Your task to perform on an android device: change text size in settings app Image 0: 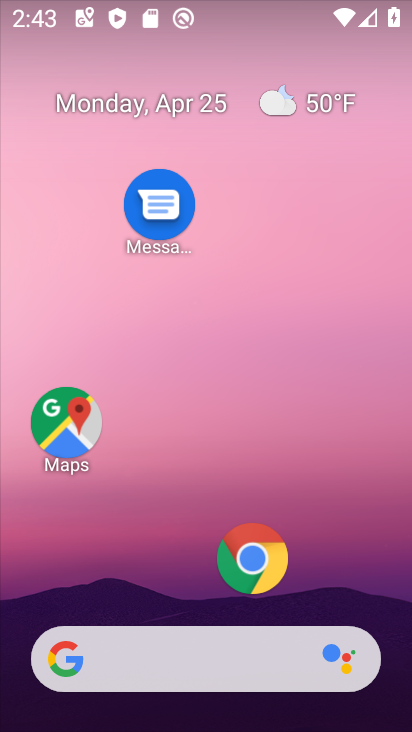
Step 0: click (201, 371)
Your task to perform on an android device: change text size in settings app Image 1: 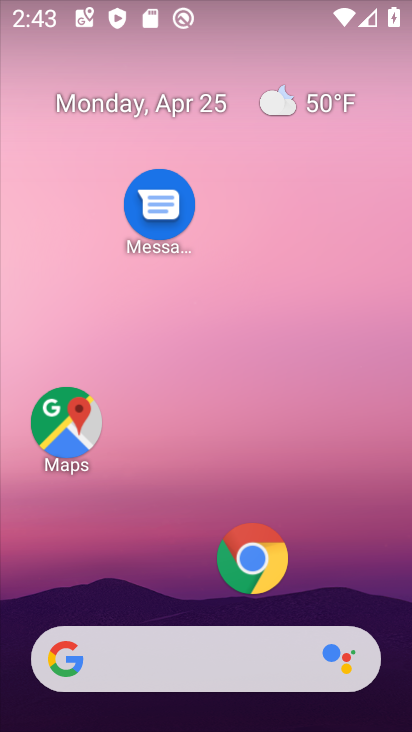
Step 1: drag from (163, 495) to (331, 7)
Your task to perform on an android device: change text size in settings app Image 2: 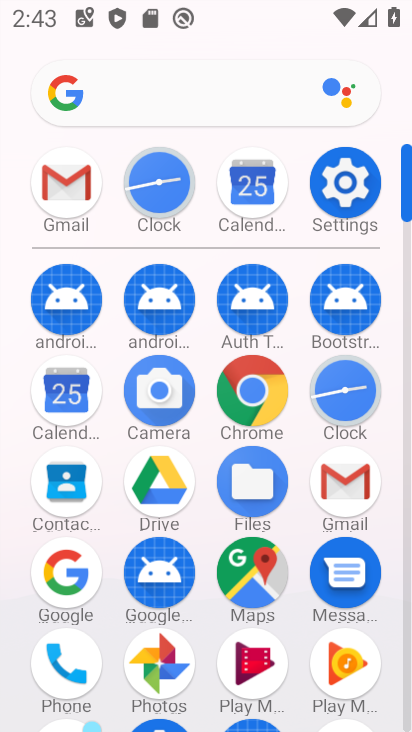
Step 2: drag from (200, 601) to (255, 122)
Your task to perform on an android device: change text size in settings app Image 3: 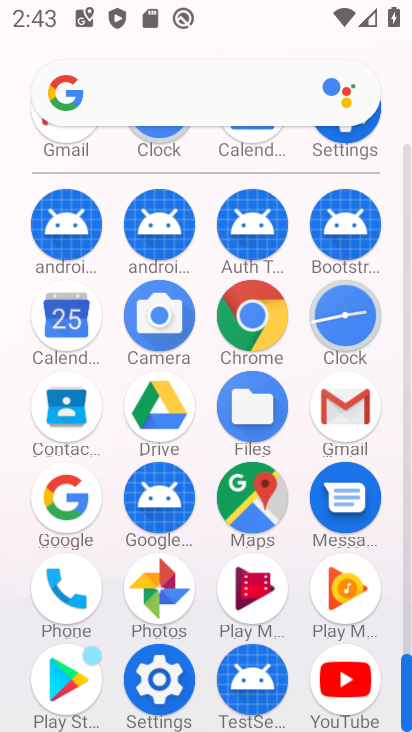
Step 3: click (151, 696)
Your task to perform on an android device: change text size in settings app Image 4: 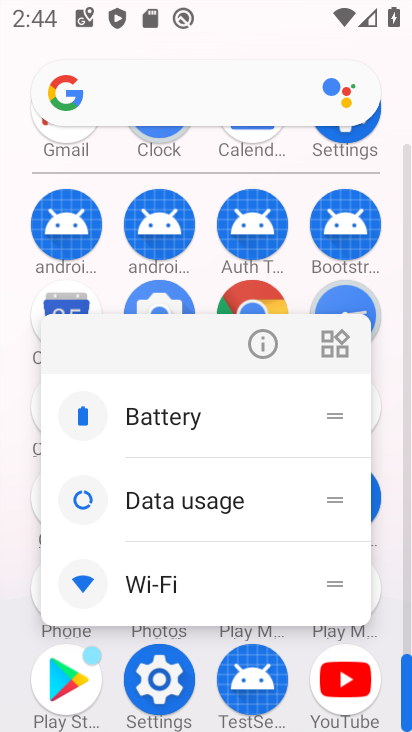
Step 4: click (145, 684)
Your task to perform on an android device: change text size in settings app Image 5: 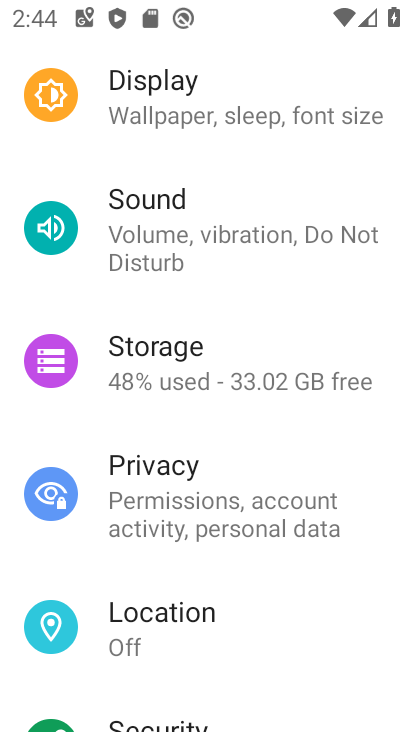
Step 5: click (239, 107)
Your task to perform on an android device: change text size in settings app Image 6: 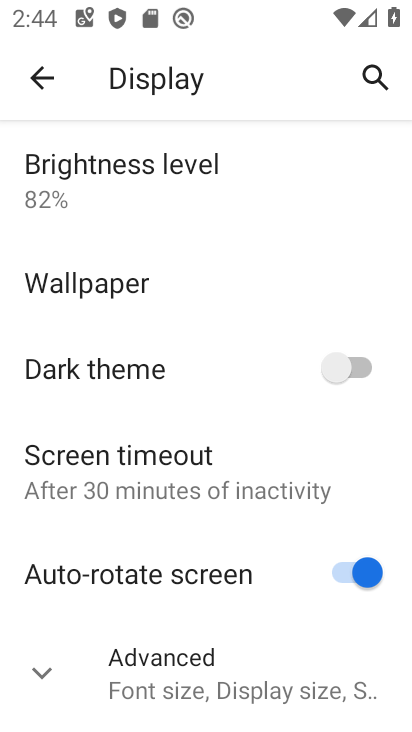
Step 6: click (163, 663)
Your task to perform on an android device: change text size in settings app Image 7: 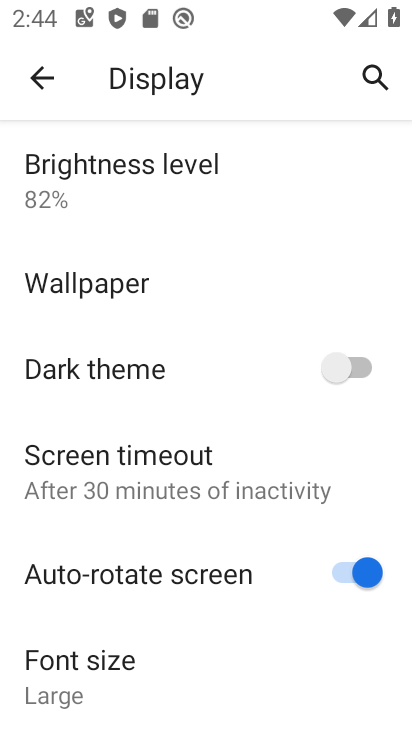
Step 7: drag from (143, 613) to (200, 428)
Your task to perform on an android device: change text size in settings app Image 8: 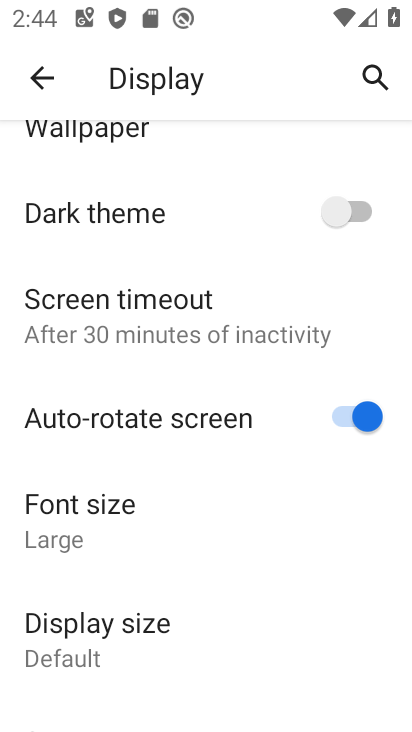
Step 8: click (92, 539)
Your task to perform on an android device: change text size in settings app Image 9: 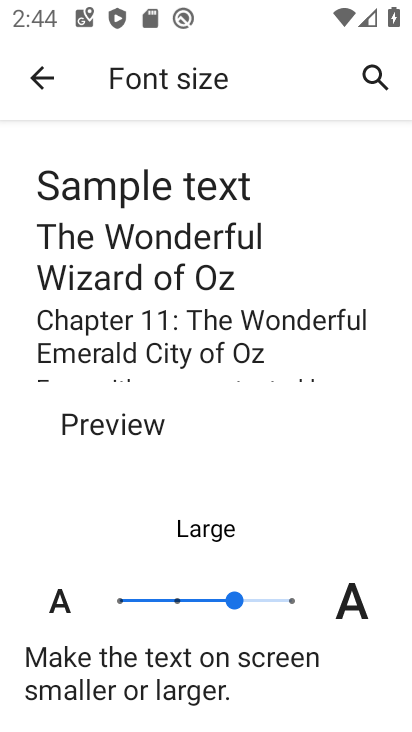
Step 9: click (118, 599)
Your task to perform on an android device: change text size in settings app Image 10: 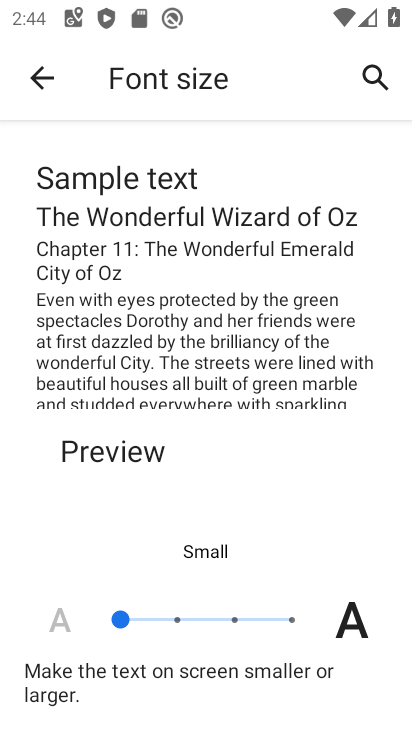
Step 10: task complete